Your task to perform on an android device: turn off javascript in the chrome app Image 0: 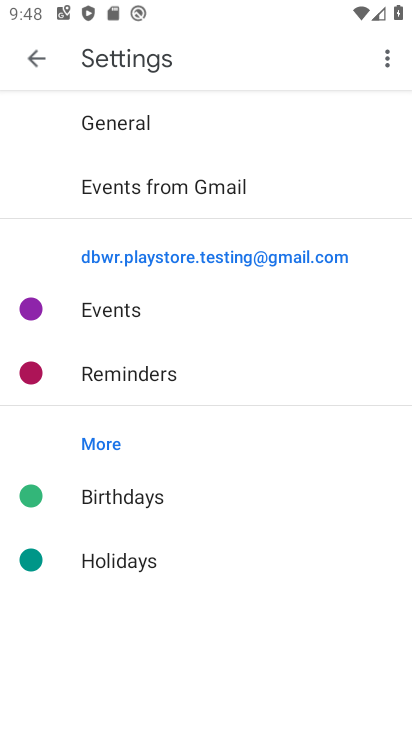
Step 0: press home button
Your task to perform on an android device: turn off javascript in the chrome app Image 1: 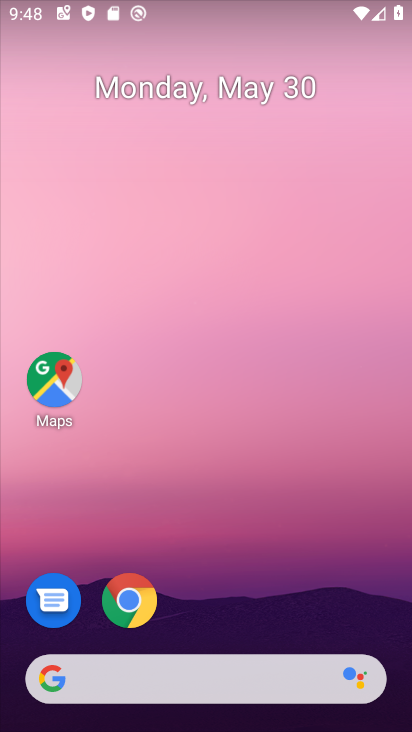
Step 1: click (128, 613)
Your task to perform on an android device: turn off javascript in the chrome app Image 2: 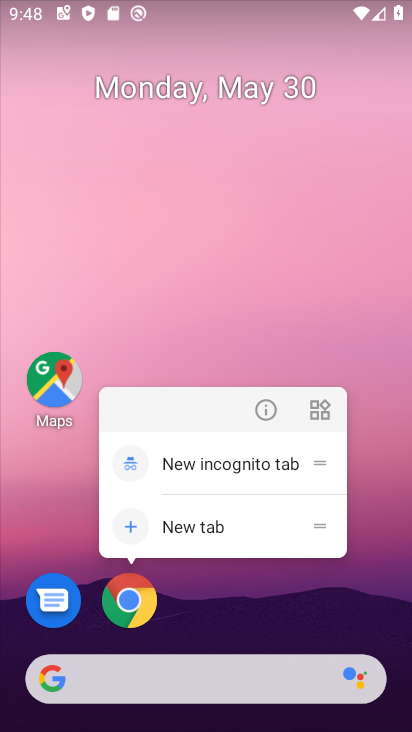
Step 2: click (130, 597)
Your task to perform on an android device: turn off javascript in the chrome app Image 3: 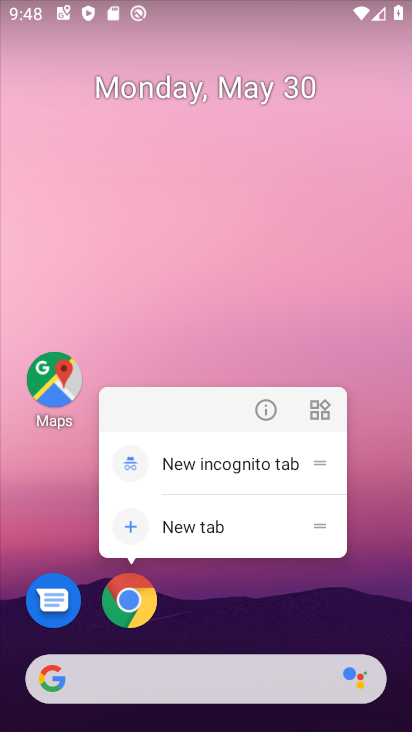
Step 3: click (130, 597)
Your task to perform on an android device: turn off javascript in the chrome app Image 4: 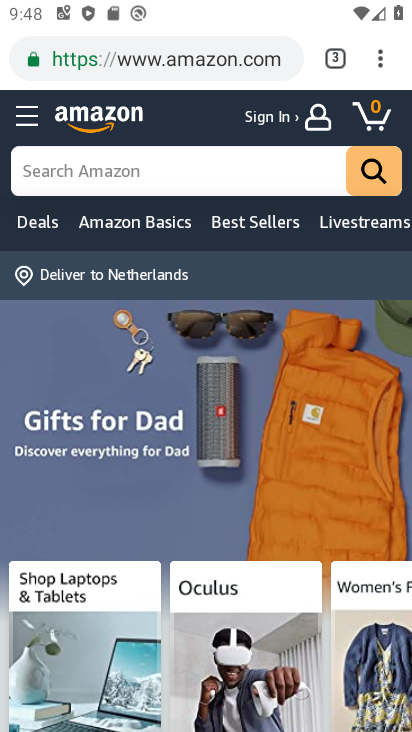
Step 4: drag from (382, 47) to (220, 630)
Your task to perform on an android device: turn off javascript in the chrome app Image 5: 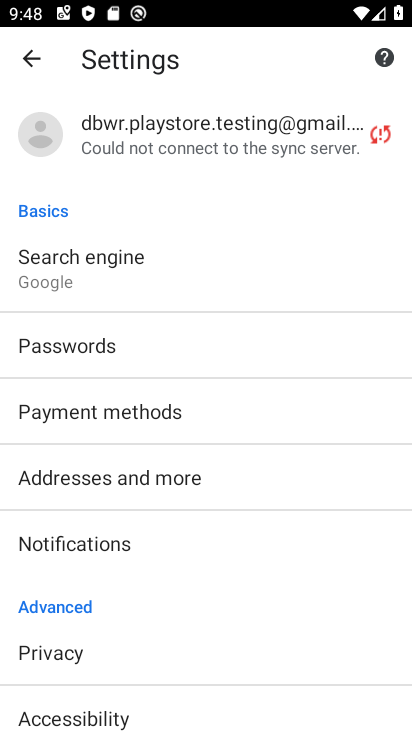
Step 5: drag from (324, 599) to (299, 234)
Your task to perform on an android device: turn off javascript in the chrome app Image 6: 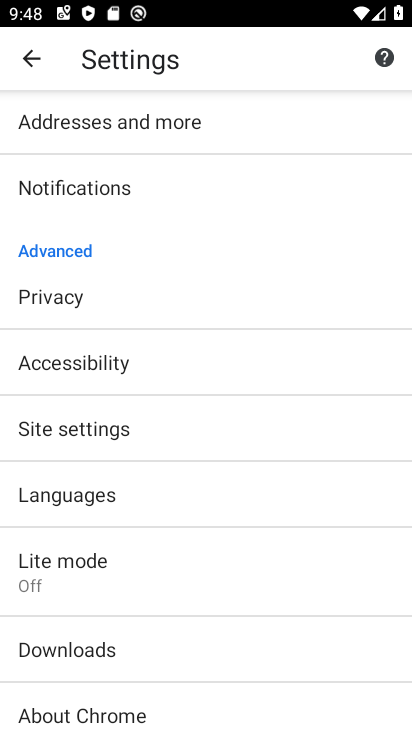
Step 6: click (96, 431)
Your task to perform on an android device: turn off javascript in the chrome app Image 7: 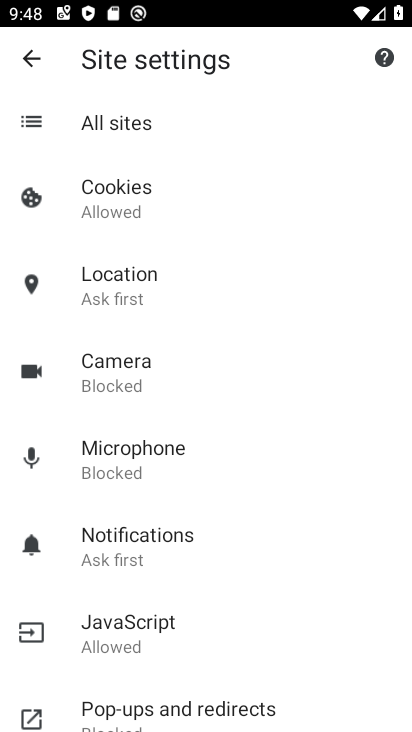
Step 7: click (165, 628)
Your task to perform on an android device: turn off javascript in the chrome app Image 8: 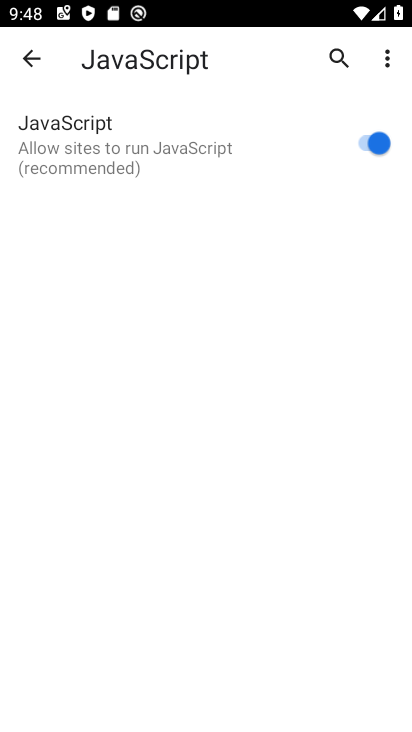
Step 8: click (375, 142)
Your task to perform on an android device: turn off javascript in the chrome app Image 9: 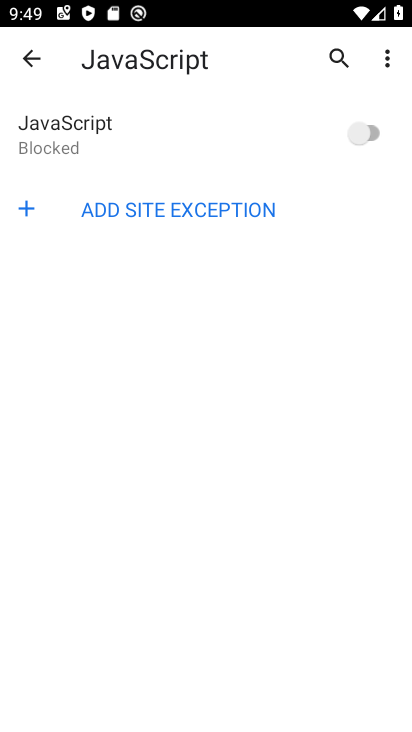
Step 9: task complete